Your task to perform on an android device: Open Reddit.com Image 0: 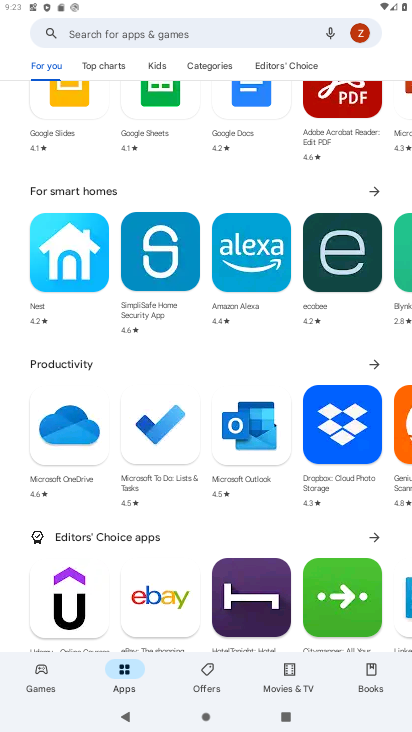
Step 0: press home button
Your task to perform on an android device: Open Reddit.com Image 1: 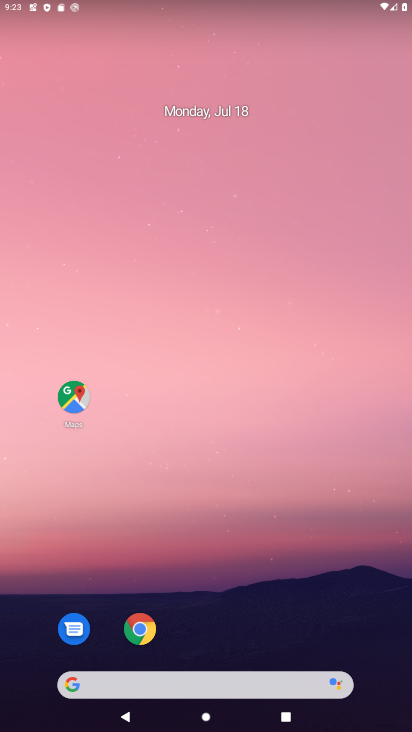
Step 1: drag from (263, 627) to (261, 46)
Your task to perform on an android device: Open Reddit.com Image 2: 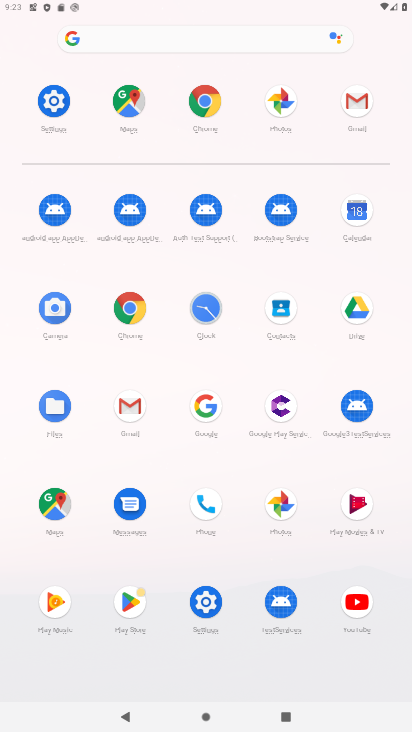
Step 2: click (206, 100)
Your task to perform on an android device: Open Reddit.com Image 3: 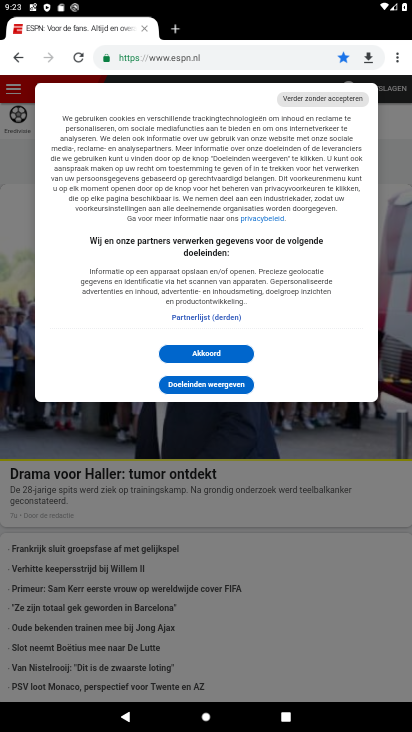
Step 3: click (210, 59)
Your task to perform on an android device: Open Reddit.com Image 4: 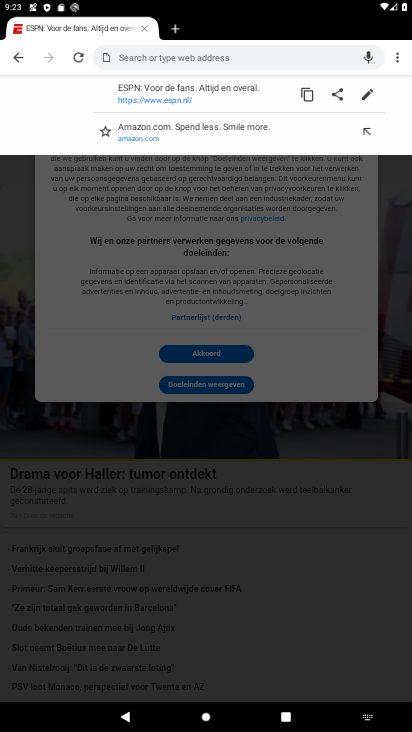
Step 4: type "reddit.com"
Your task to perform on an android device: Open Reddit.com Image 5: 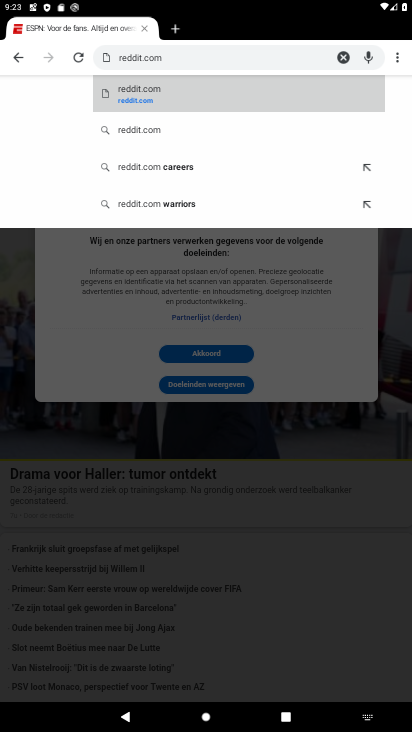
Step 5: click (153, 106)
Your task to perform on an android device: Open Reddit.com Image 6: 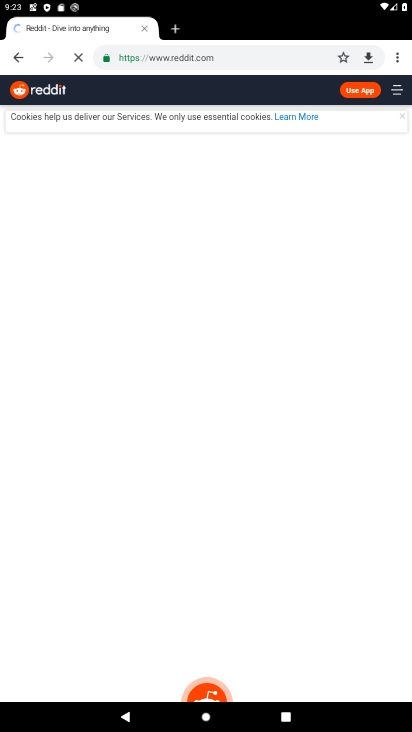
Step 6: task complete